Your task to perform on an android device: Open Android settings Image 0: 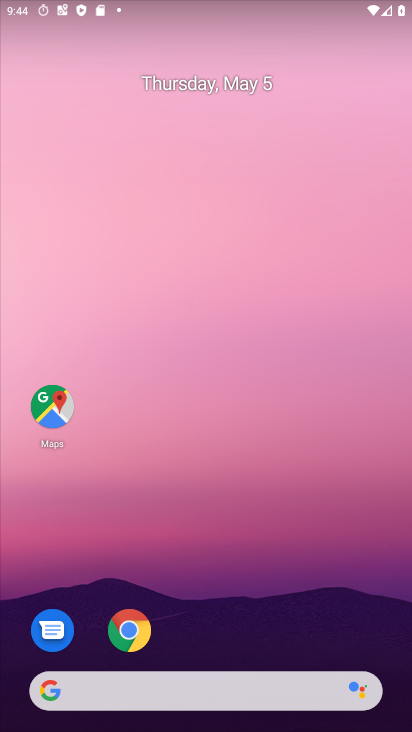
Step 0: drag from (188, 618) to (58, 100)
Your task to perform on an android device: Open Android settings Image 1: 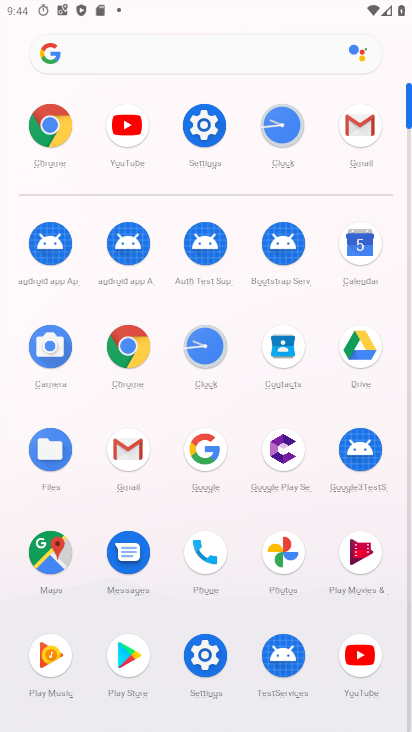
Step 1: click (202, 132)
Your task to perform on an android device: Open Android settings Image 2: 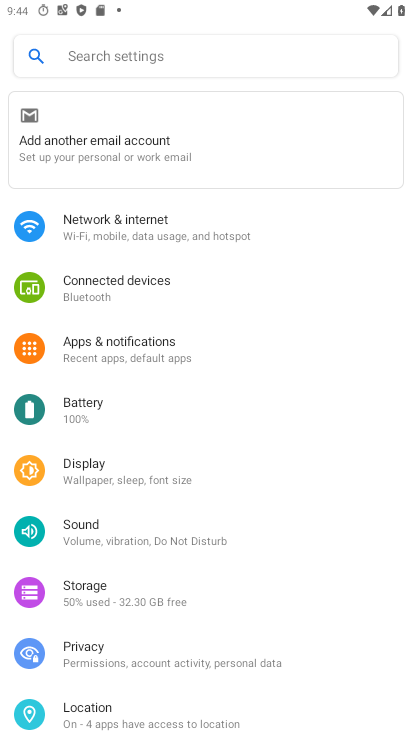
Step 2: drag from (176, 666) to (161, 168)
Your task to perform on an android device: Open Android settings Image 3: 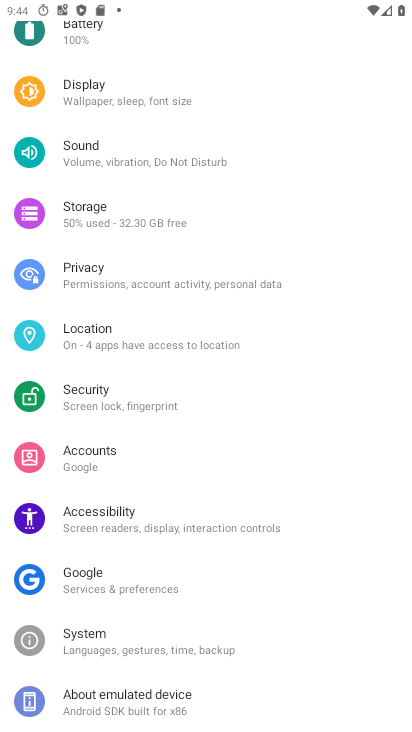
Step 3: click (144, 699)
Your task to perform on an android device: Open Android settings Image 4: 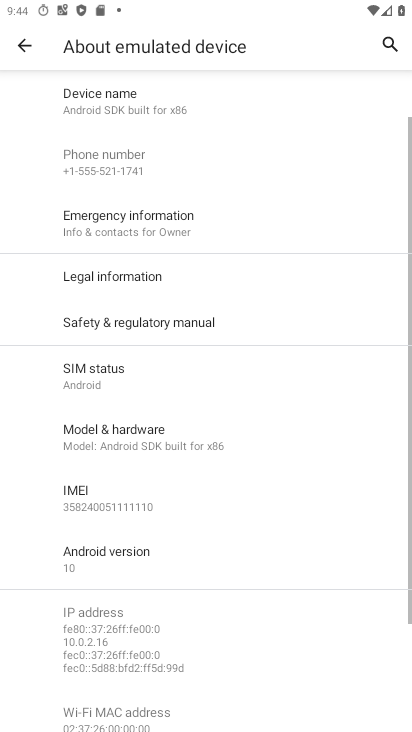
Step 4: click (102, 557)
Your task to perform on an android device: Open Android settings Image 5: 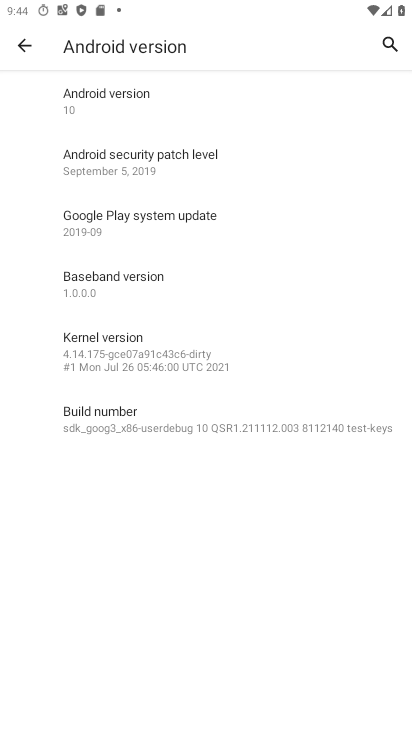
Step 5: task complete